Your task to perform on an android device: find which apps use the phone's location Image 0: 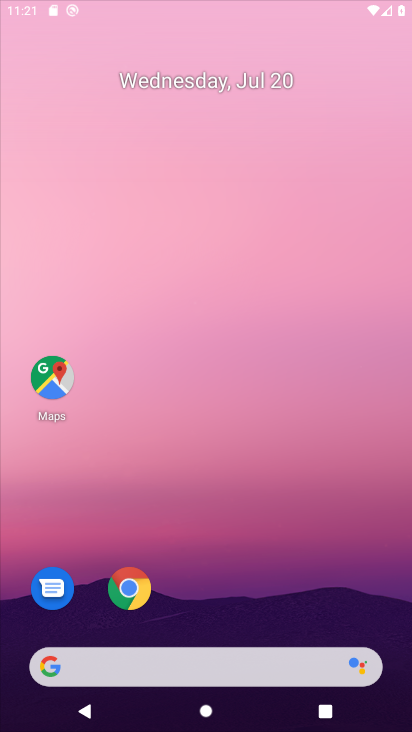
Step 0: press home button
Your task to perform on an android device: find which apps use the phone's location Image 1: 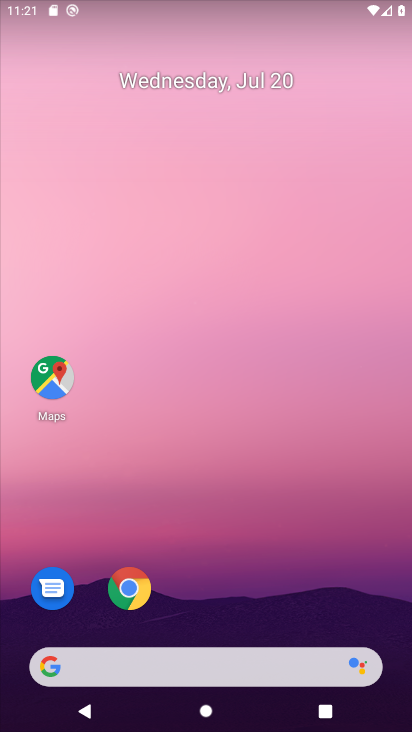
Step 1: drag from (213, 628) to (205, 5)
Your task to perform on an android device: find which apps use the phone's location Image 2: 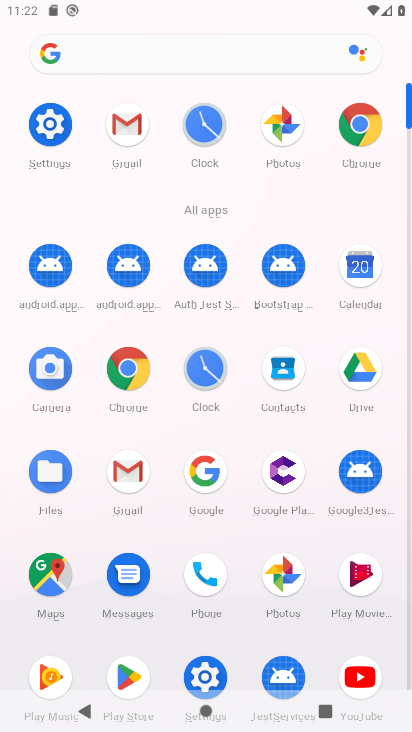
Step 2: click (47, 117)
Your task to perform on an android device: find which apps use the phone's location Image 3: 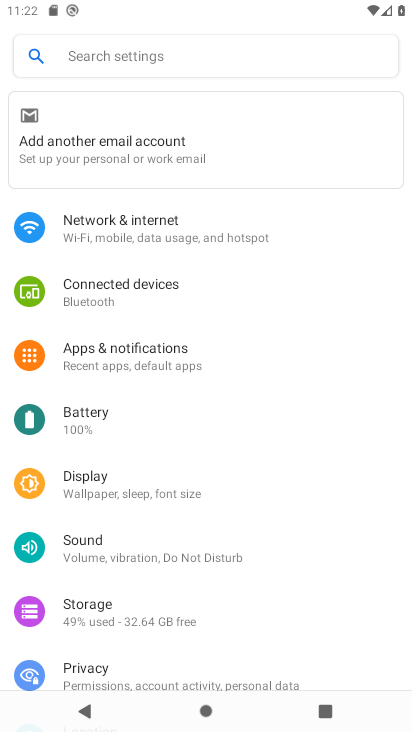
Step 3: drag from (124, 652) to (121, 200)
Your task to perform on an android device: find which apps use the phone's location Image 4: 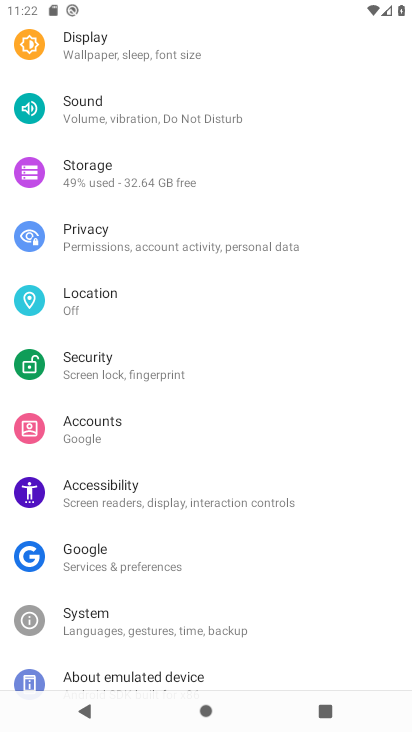
Step 4: click (106, 304)
Your task to perform on an android device: find which apps use the phone's location Image 5: 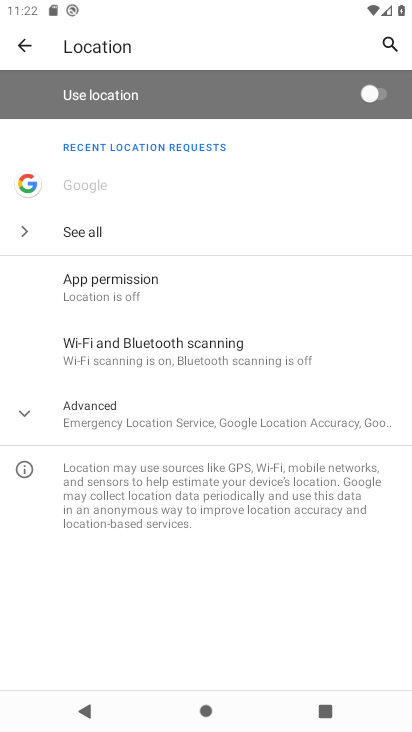
Step 5: click (96, 277)
Your task to perform on an android device: find which apps use the phone's location Image 6: 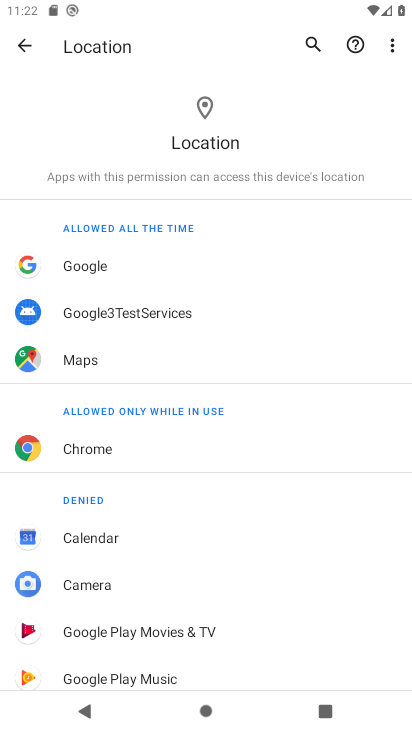
Step 6: task complete